Your task to perform on an android device: check storage Image 0: 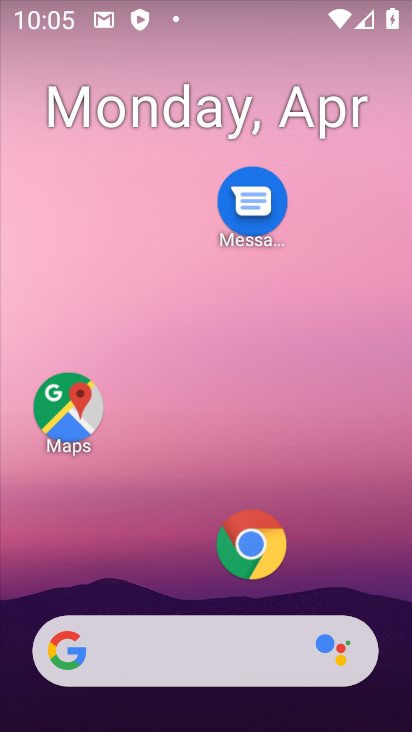
Step 0: drag from (208, 591) to (211, 44)
Your task to perform on an android device: check storage Image 1: 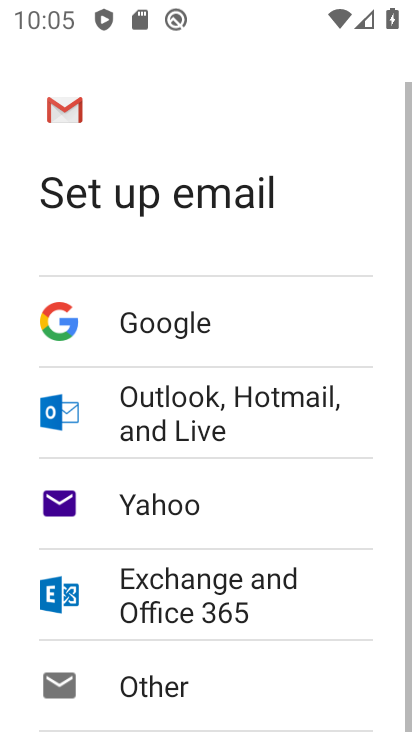
Step 1: press home button
Your task to perform on an android device: check storage Image 2: 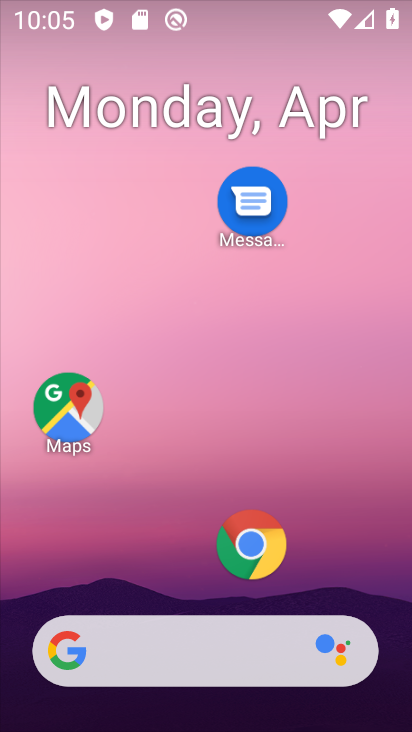
Step 2: drag from (193, 590) to (186, 9)
Your task to perform on an android device: check storage Image 3: 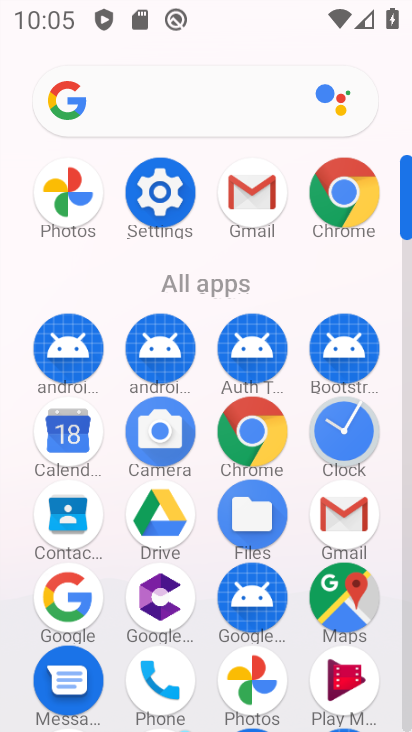
Step 3: click (157, 188)
Your task to perform on an android device: check storage Image 4: 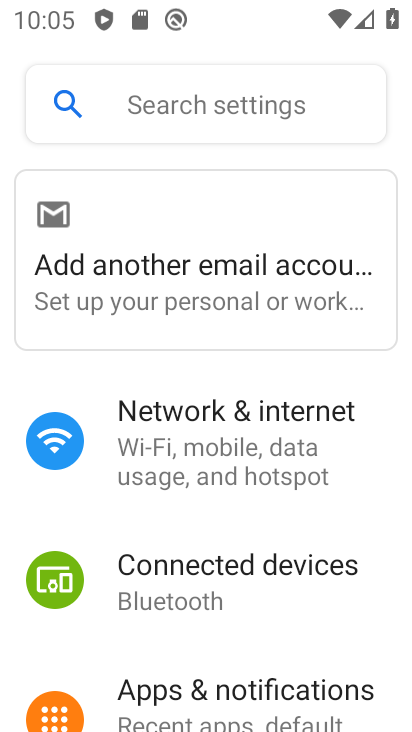
Step 4: drag from (228, 677) to (241, 100)
Your task to perform on an android device: check storage Image 5: 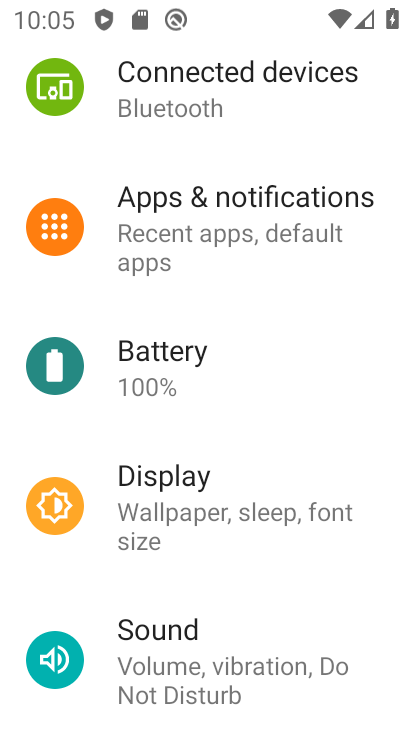
Step 5: drag from (219, 633) to (228, 106)
Your task to perform on an android device: check storage Image 6: 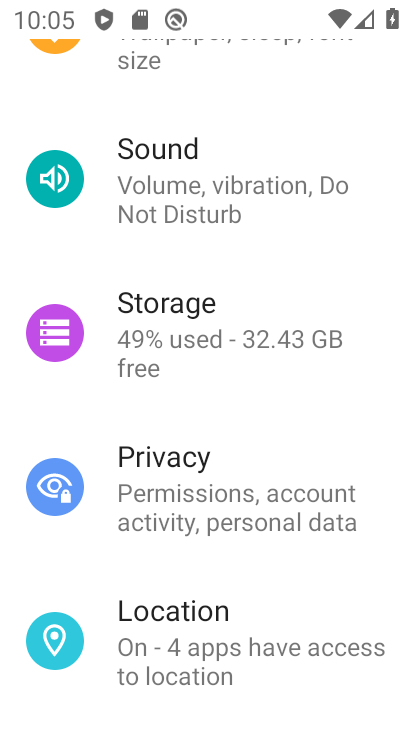
Step 6: click (220, 300)
Your task to perform on an android device: check storage Image 7: 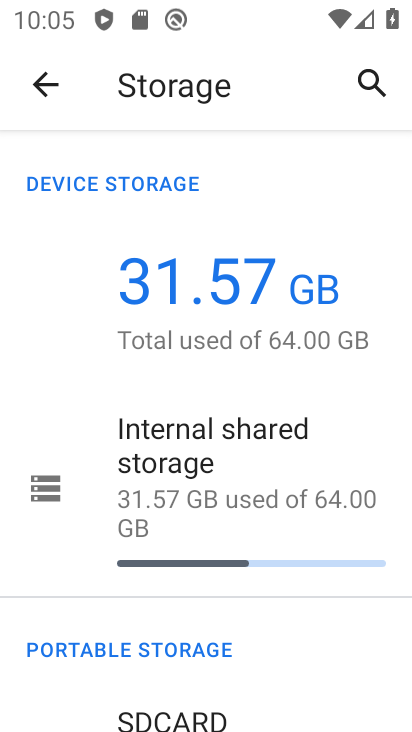
Step 7: task complete